Your task to perform on an android device: open app "Messages" (install if not already installed) and enter user name: "Hersey@inbox.com" and password: "facings" Image 0: 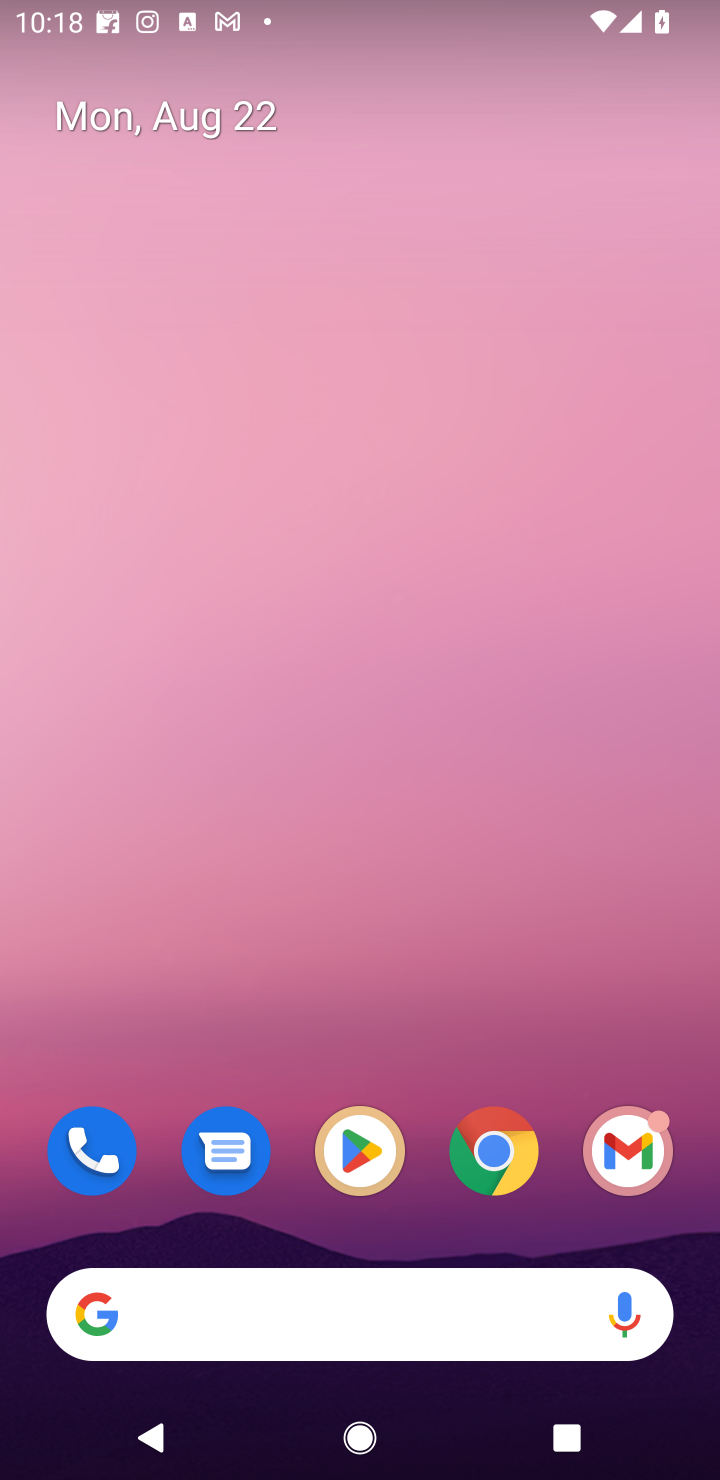
Step 0: click (372, 1148)
Your task to perform on an android device: open app "Messages" (install if not already installed) and enter user name: "Hersey@inbox.com" and password: "facings" Image 1: 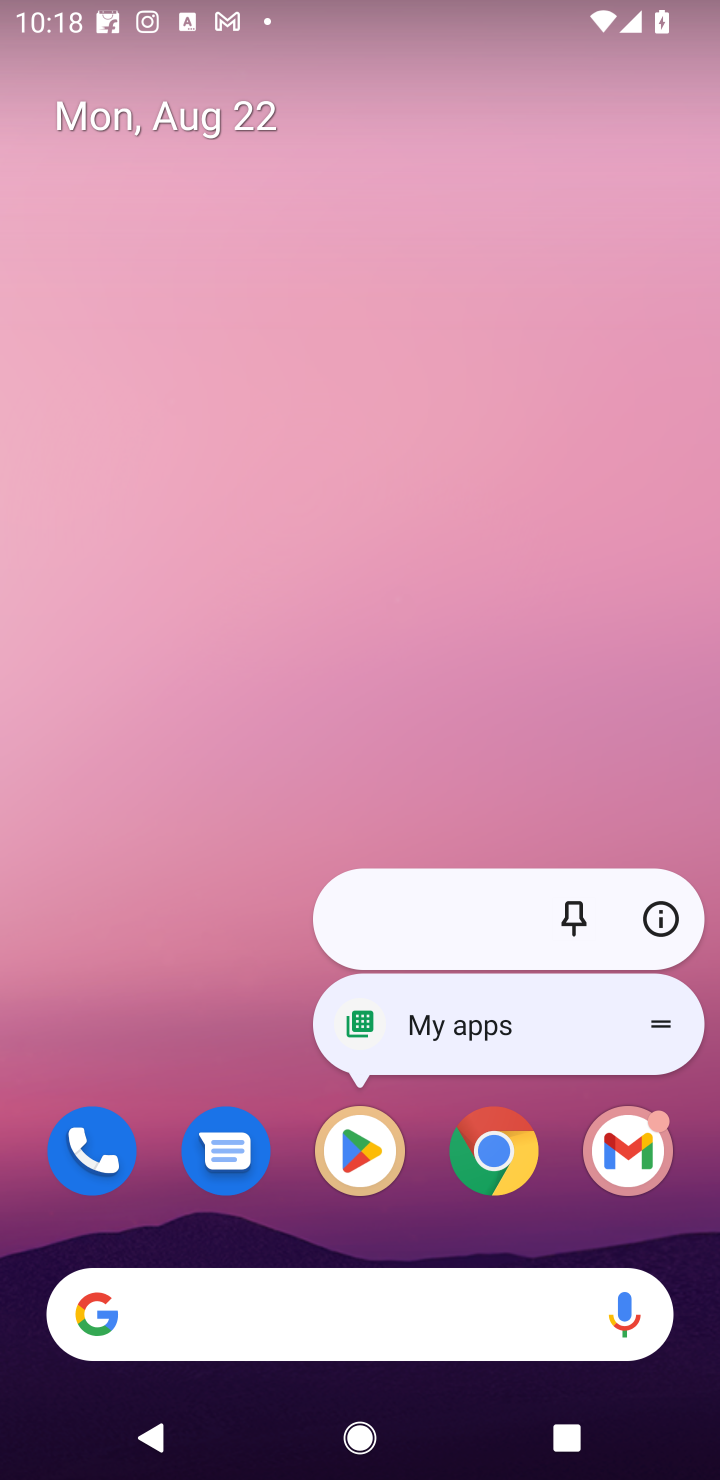
Step 1: click (366, 1140)
Your task to perform on an android device: open app "Messages" (install if not already installed) and enter user name: "Hersey@inbox.com" and password: "facings" Image 2: 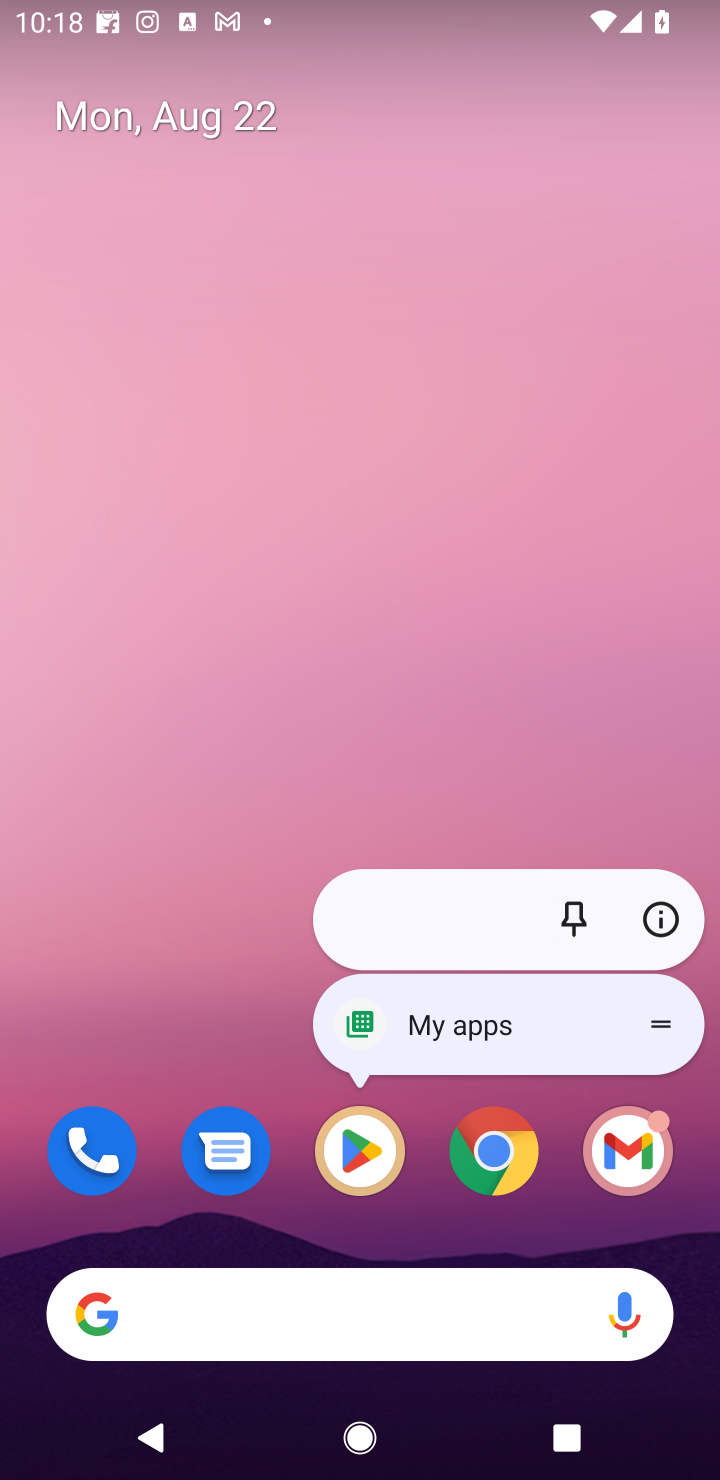
Step 2: click (366, 1146)
Your task to perform on an android device: open app "Messages" (install if not already installed) and enter user name: "Hersey@inbox.com" and password: "facings" Image 3: 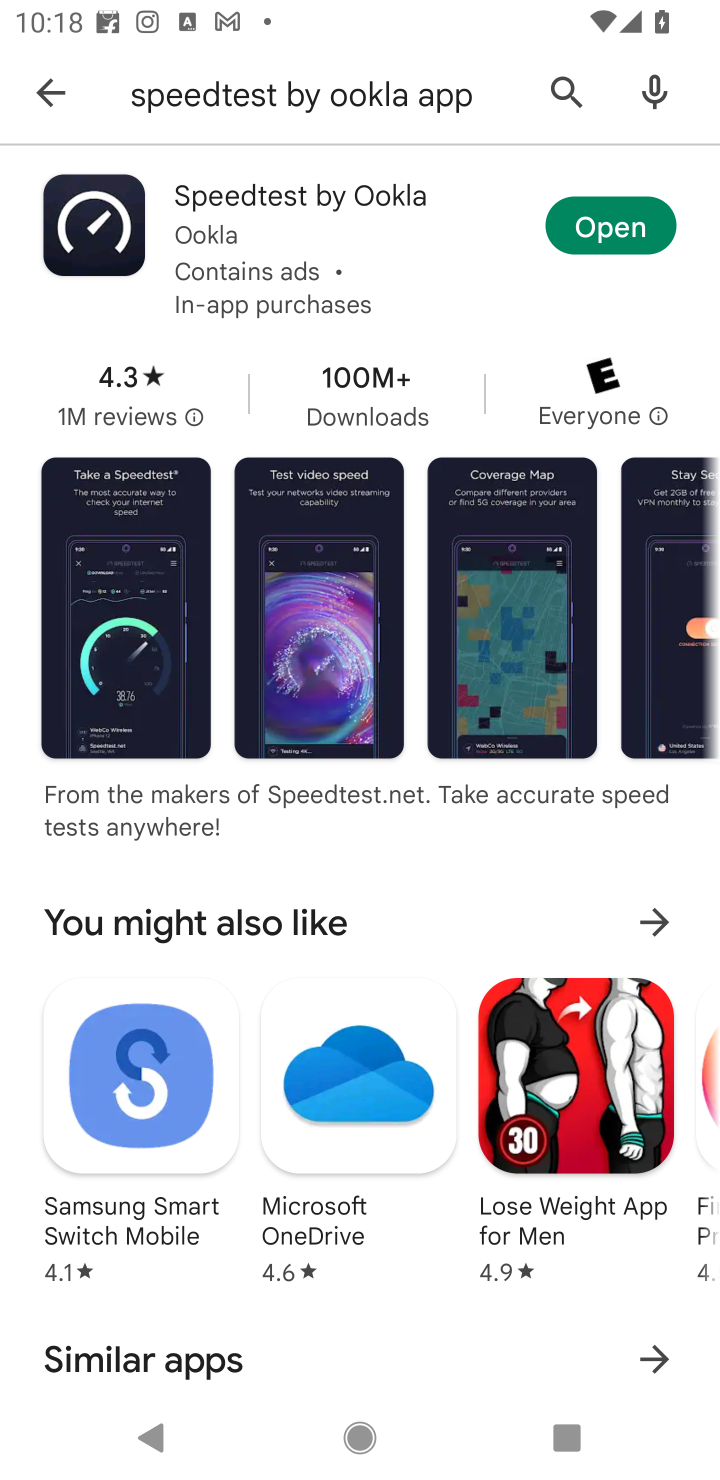
Step 3: click (549, 88)
Your task to perform on an android device: open app "Messages" (install if not already installed) and enter user name: "Hersey@inbox.com" and password: "facings" Image 4: 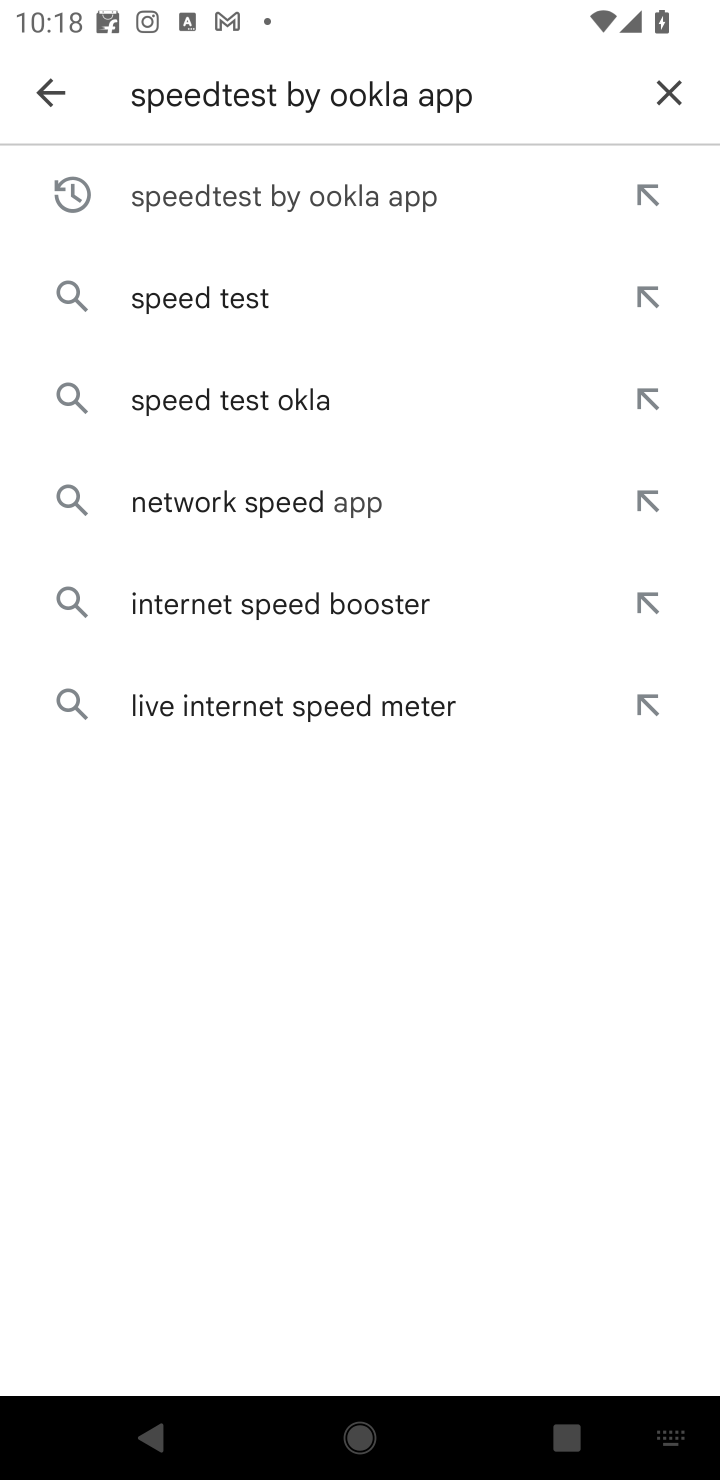
Step 4: click (648, 84)
Your task to perform on an android device: open app "Messages" (install if not already installed) and enter user name: "Hersey@inbox.com" and password: "facings" Image 5: 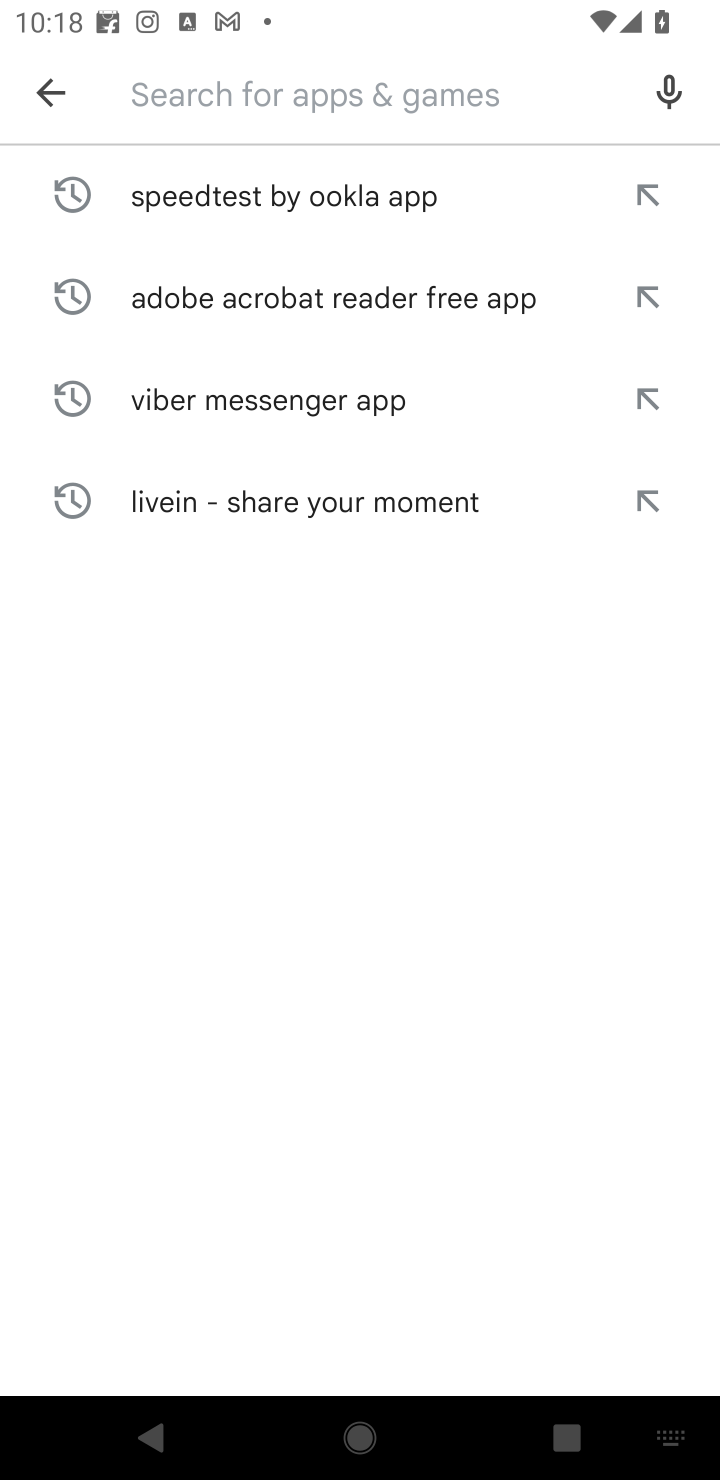
Step 5: type "Messages"
Your task to perform on an android device: open app "Messages" (install if not already installed) and enter user name: "Hersey@inbox.com" and password: "facings" Image 6: 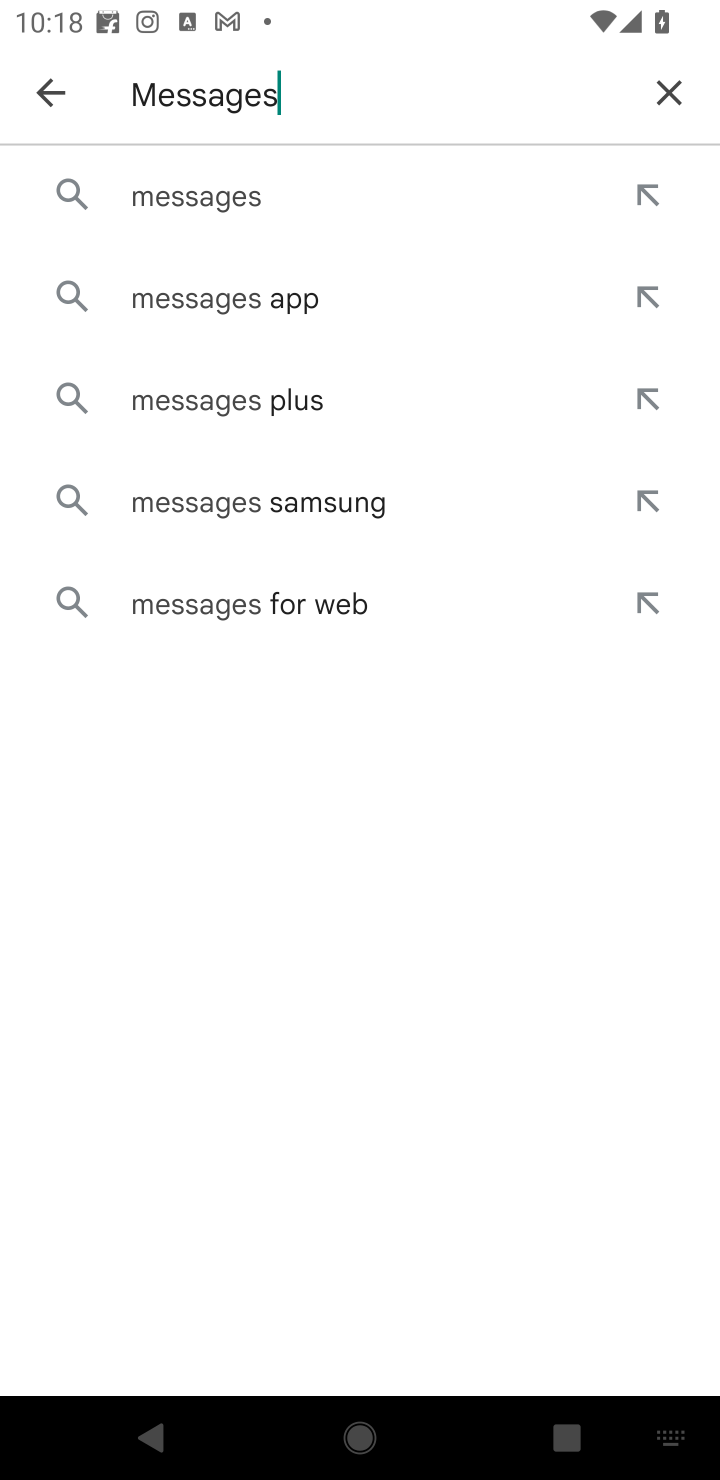
Step 6: click (175, 199)
Your task to perform on an android device: open app "Messages" (install if not already installed) and enter user name: "Hersey@inbox.com" and password: "facings" Image 7: 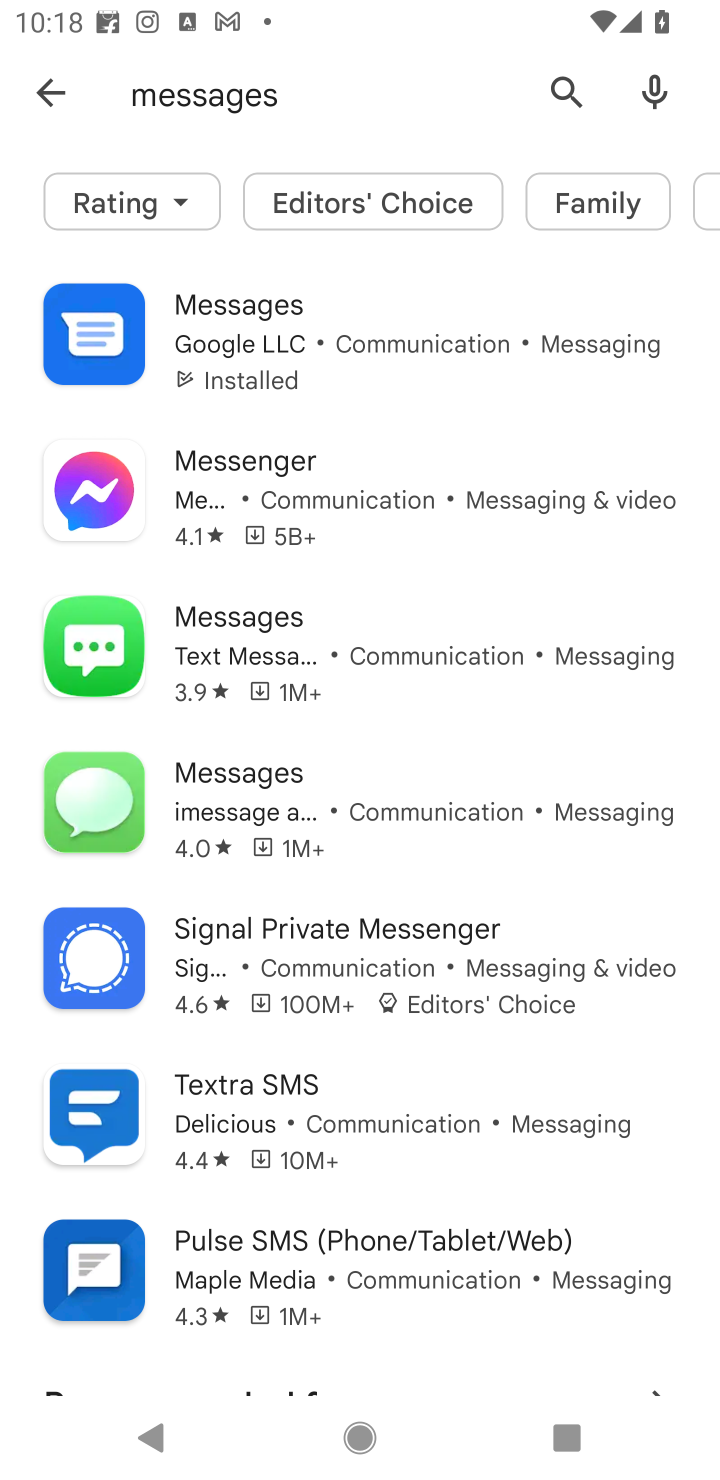
Step 7: click (282, 331)
Your task to perform on an android device: open app "Messages" (install if not already installed) and enter user name: "Hersey@inbox.com" and password: "facings" Image 8: 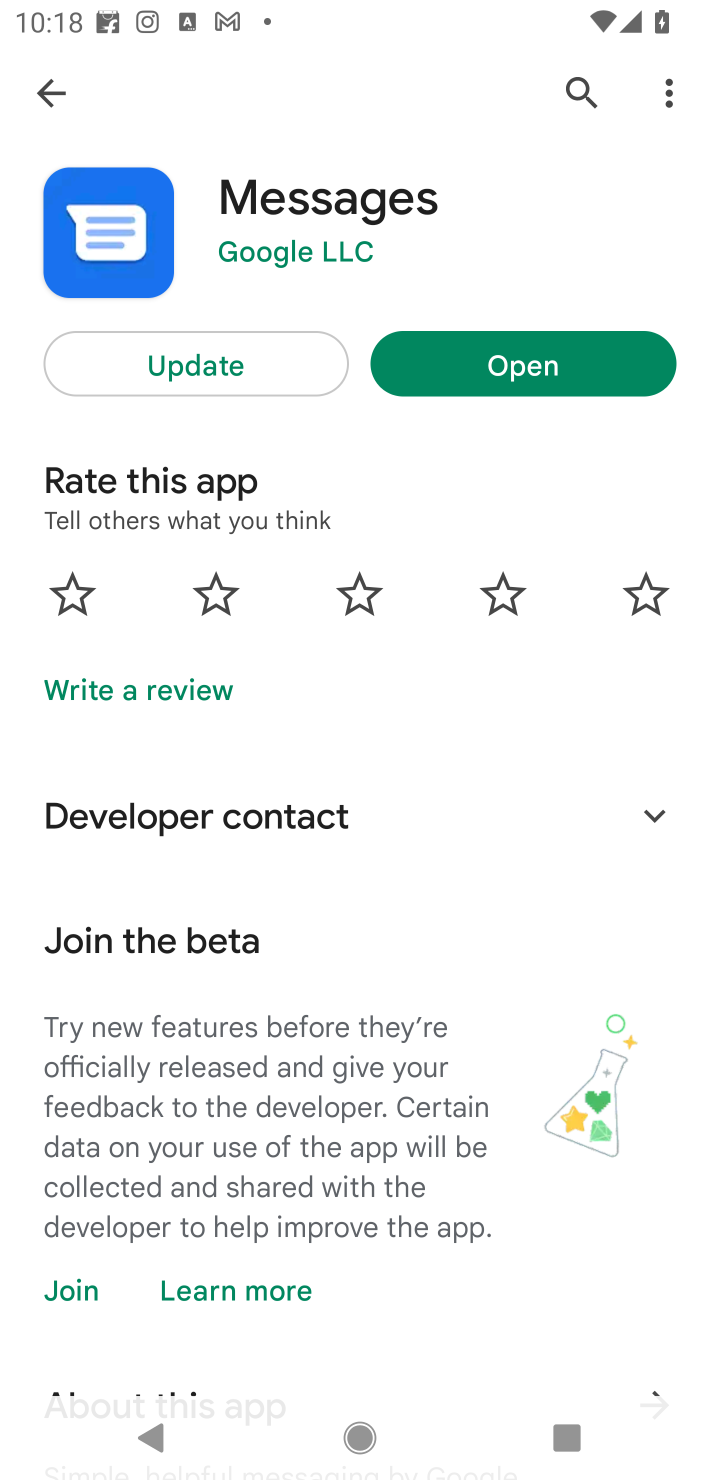
Step 8: click (507, 375)
Your task to perform on an android device: open app "Messages" (install if not already installed) and enter user name: "Hersey@inbox.com" and password: "facings" Image 9: 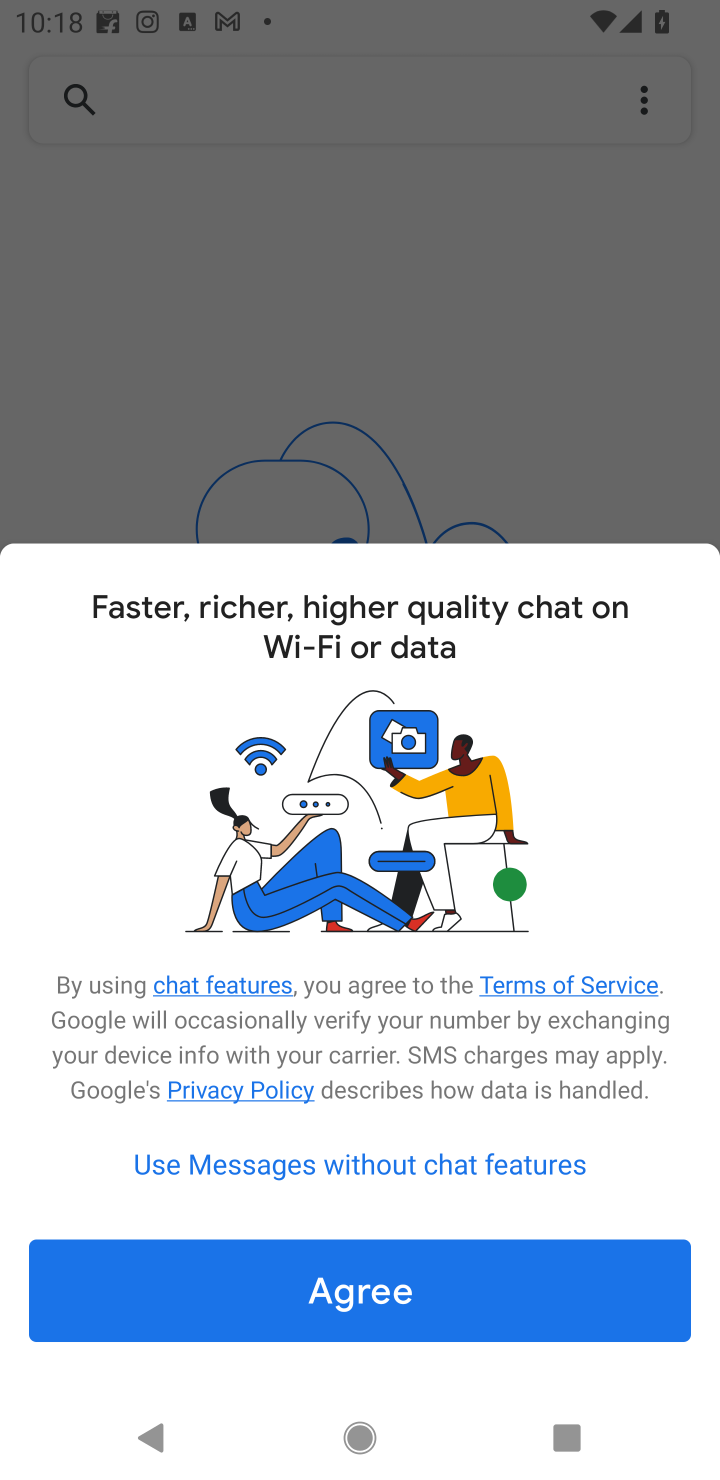
Step 9: task complete